Your task to perform on an android device: star an email in the gmail app Image 0: 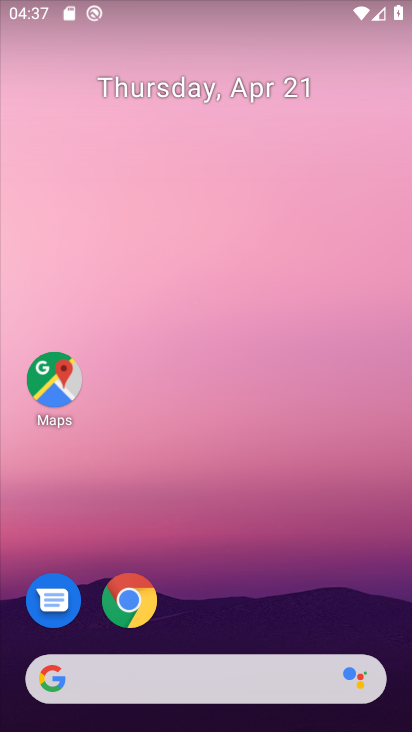
Step 0: drag from (372, 620) to (410, 402)
Your task to perform on an android device: star an email in the gmail app Image 1: 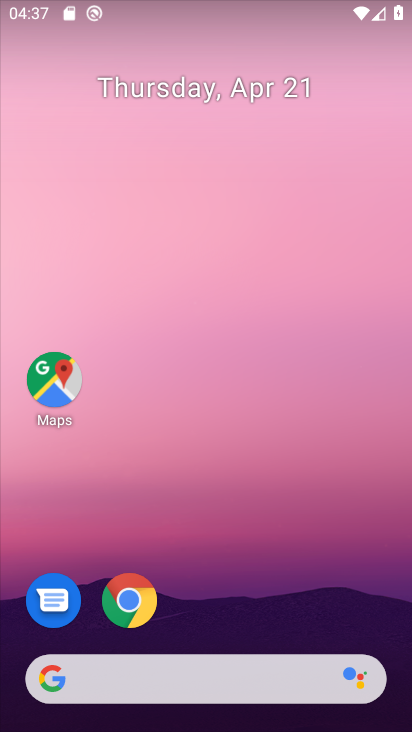
Step 1: drag from (293, 538) to (281, 12)
Your task to perform on an android device: star an email in the gmail app Image 2: 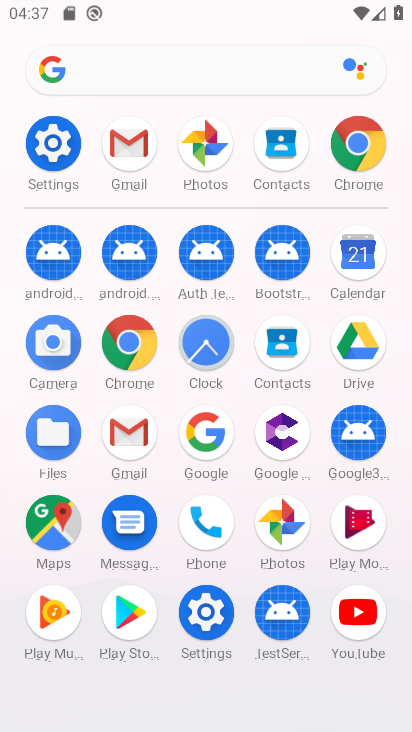
Step 2: click (128, 150)
Your task to perform on an android device: star an email in the gmail app Image 3: 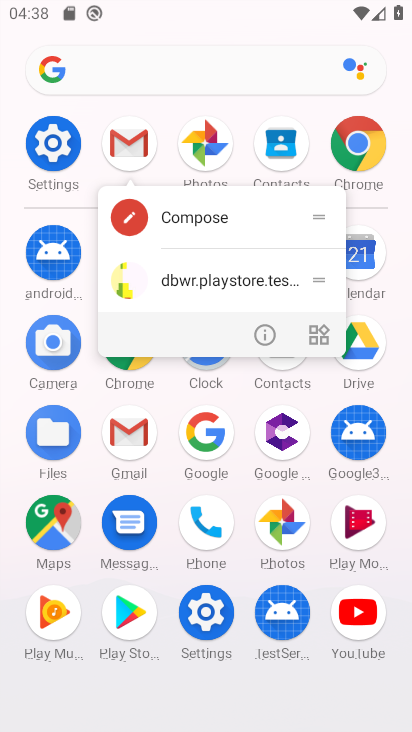
Step 3: click (129, 149)
Your task to perform on an android device: star an email in the gmail app Image 4: 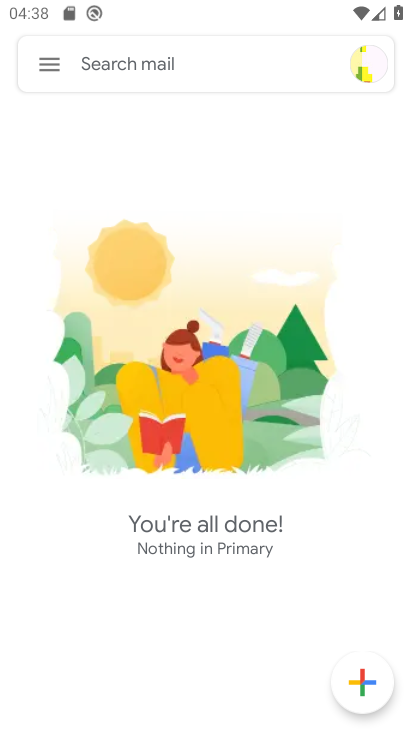
Step 4: click (43, 65)
Your task to perform on an android device: star an email in the gmail app Image 5: 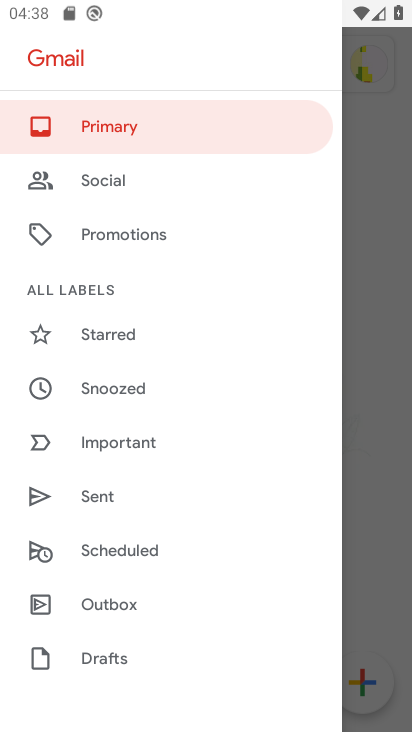
Step 5: drag from (169, 574) to (160, 186)
Your task to perform on an android device: star an email in the gmail app Image 6: 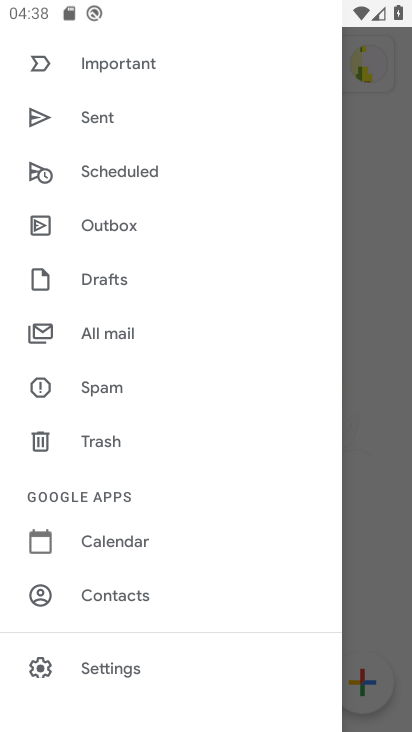
Step 6: click (88, 340)
Your task to perform on an android device: star an email in the gmail app Image 7: 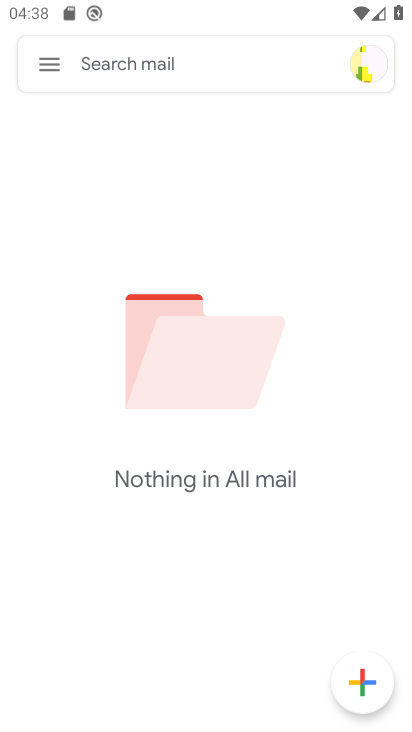
Step 7: task complete